Your task to perform on an android device: Open Google Maps and go to "Timeline" Image 0: 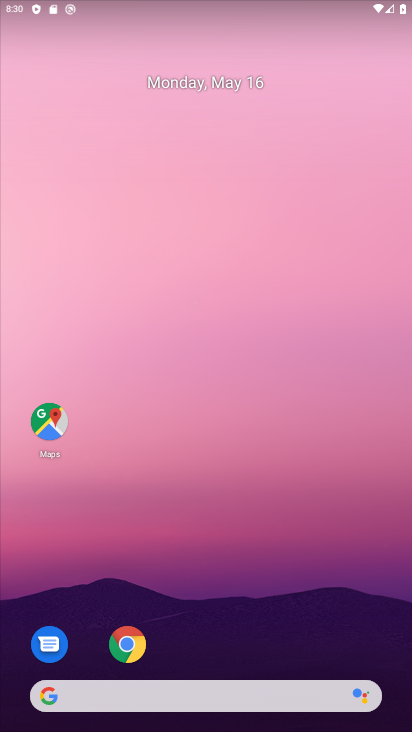
Step 0: click (35, 431)
Your task to perform on an android device: Open Google Maps and go to "Timeline" Image 1: 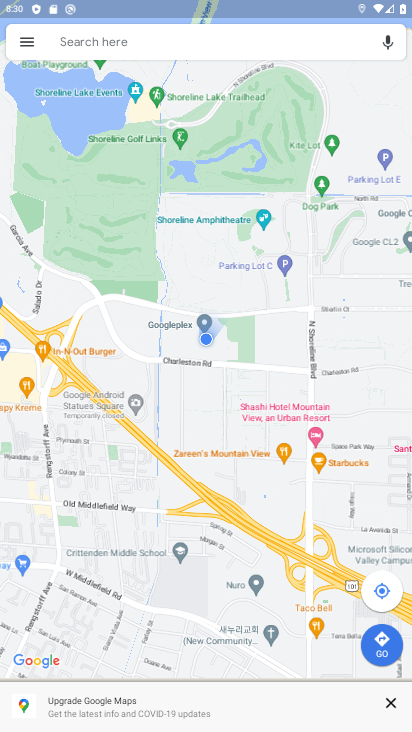
Step 1: click (23, 43)
Your task to perform on an android device: Open Google Maps and go to "Timeline" Image 2: 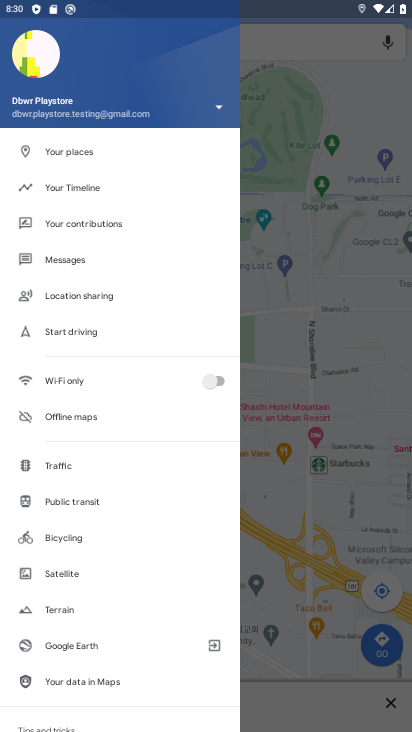
Step 2: click (94, 194)
Your task to perform on an android device: Open Google Maps and go to "Timeline" Image 3: 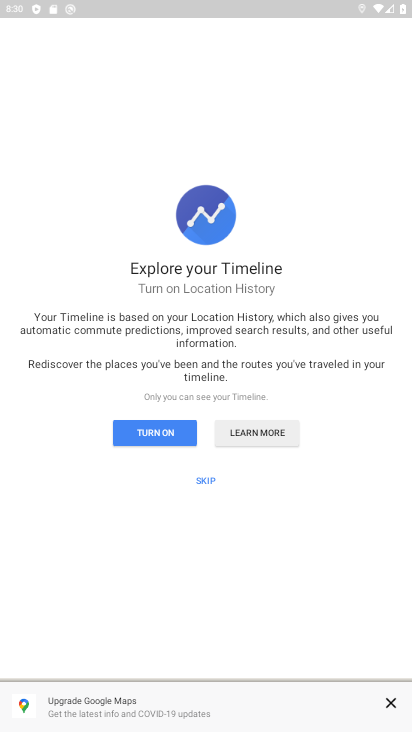
Step 3: click (201, 475)
Your task to perform on an android device: Open Google Maps and go to "Timeline" Image 4: 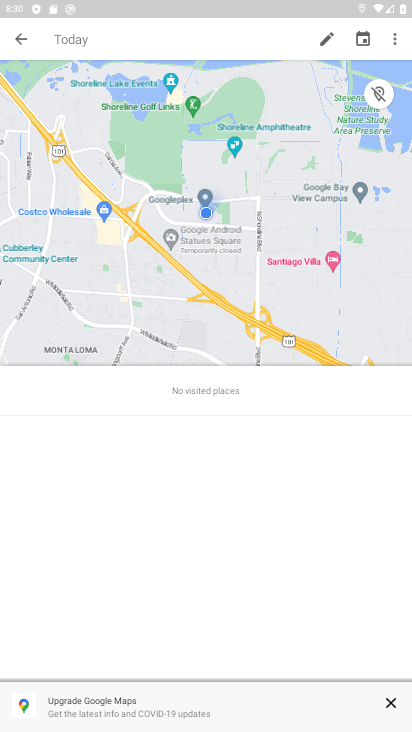
Step 4: task complete